Your task to perform on an android device: clear all cookies in the chrome app Image 0: 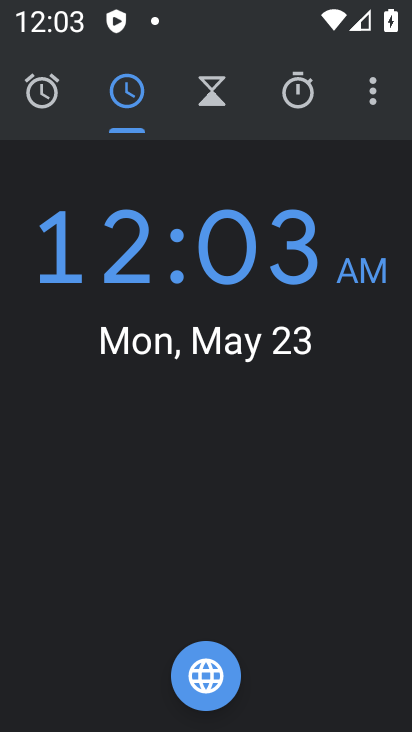
Step 0: press home button
Your task to perform on an android device: clear all cookies in the chrome app Image 1: 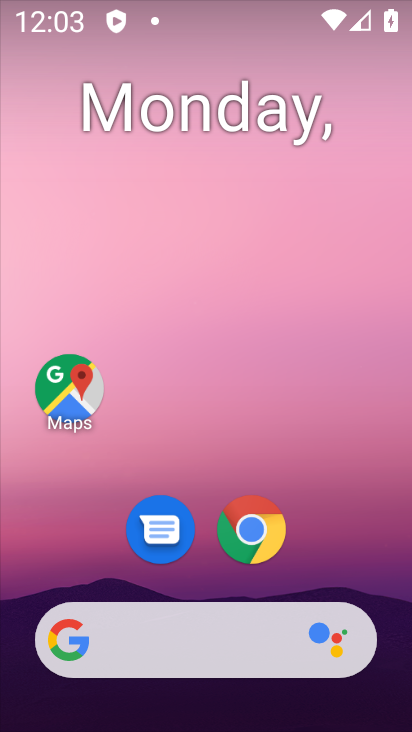
Step 1: click (276, 536)
Your task to perform on an android device: clear all cookies in the chrome app Image 2: 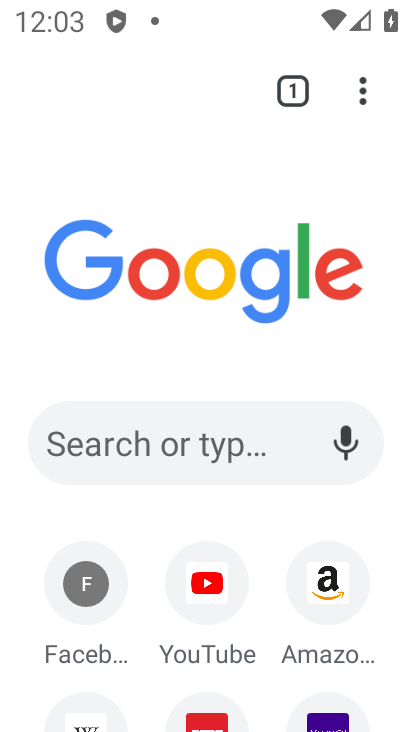
Step 2: task complete